Your task to perform on an android device: open chrome privacy settings Image 0: 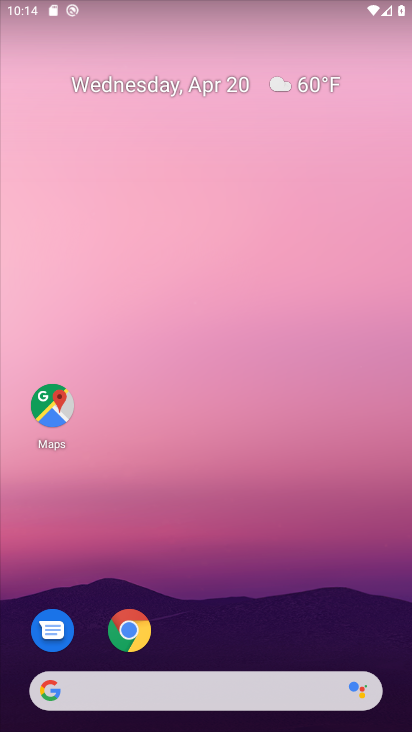
Step 0: click (291, 61)
Your task to perform on an android device: open chrome privacy settings Image 1: 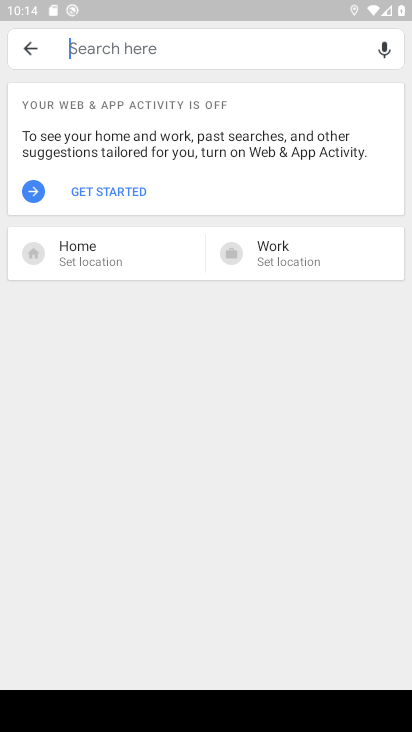
Step 1: press home button
Your task to perform on an android device: open chrome privacy settings Image 2: 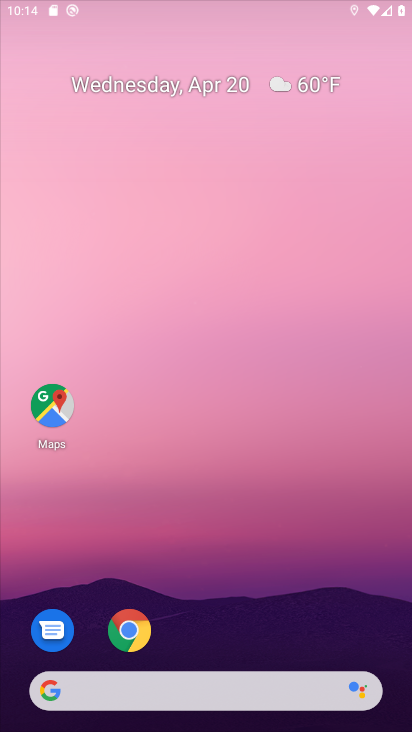
Step 2: drag from (236, 617) to (261, 296)
Your task to perform on an android device: open chrome privacy settings Image 3: 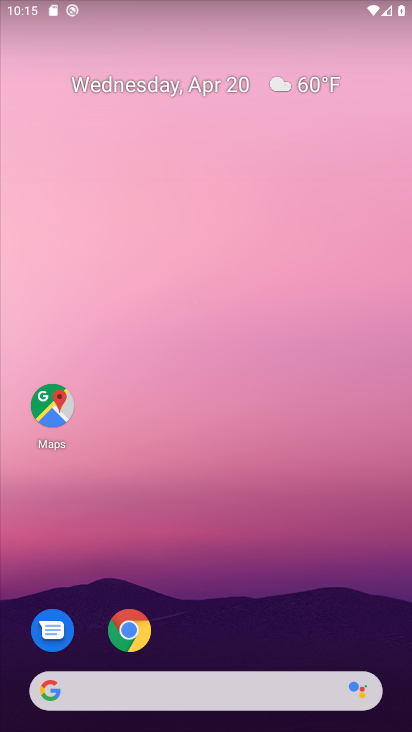
Step 3: drag from (219, 652) to (274, 271)
Your task to perform on an android device: open chrome privacy settings Image 4: 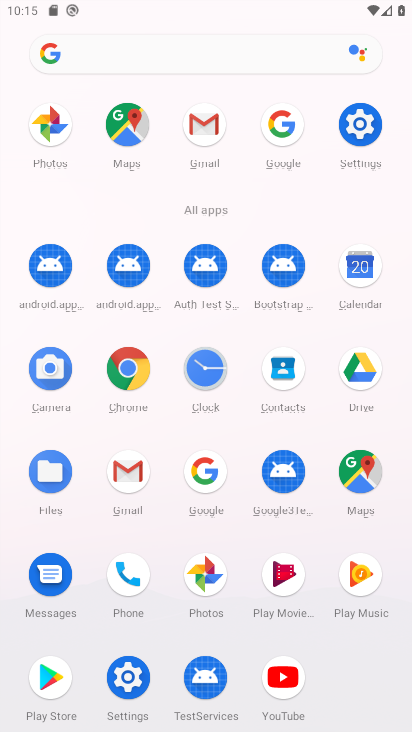
Step 4: click (122, 364)
Your task to perform on an android device: open chrome privacy settings Image 5: 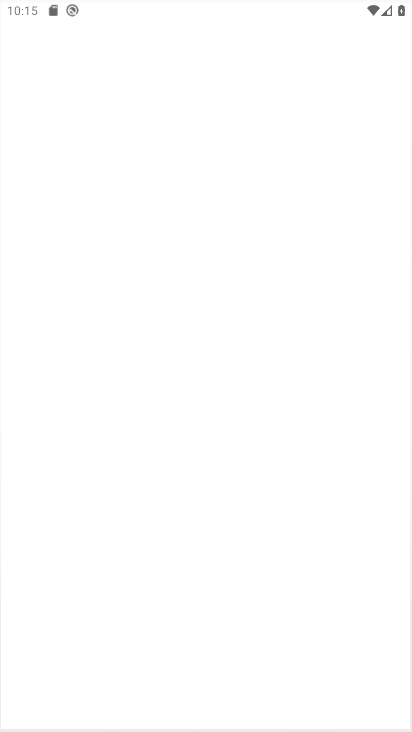
Step 5: click (125, 350)
Your task to perform on an android device: open chrome privacy settings Image 6: 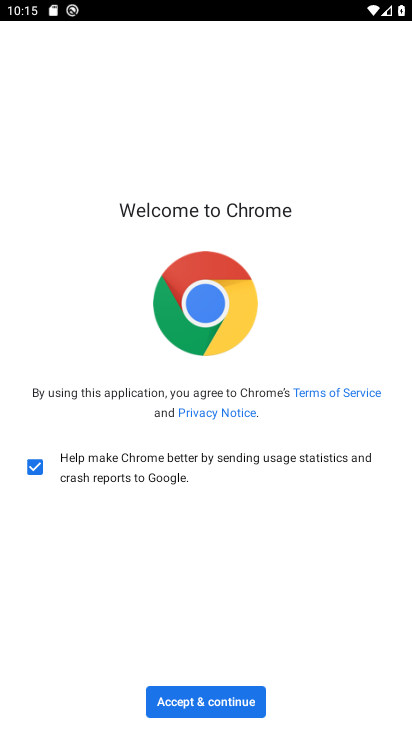
Step 6: click (204, 691)
Your task to perform on an android device: open chrome privacy settings Image 7: 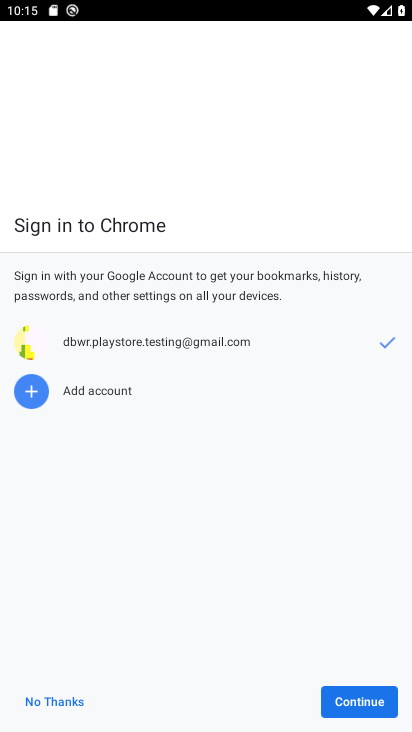
Step 7: click (368, 699)
Your task to perform on an android device: open chrome privacy settings Image 8: 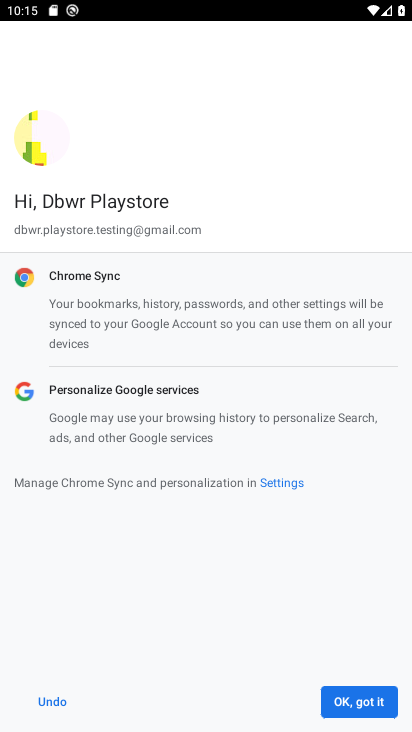
Step 8: click (368, 699)
Your task to perform on an android device: open chrome privacy settings Image 9: 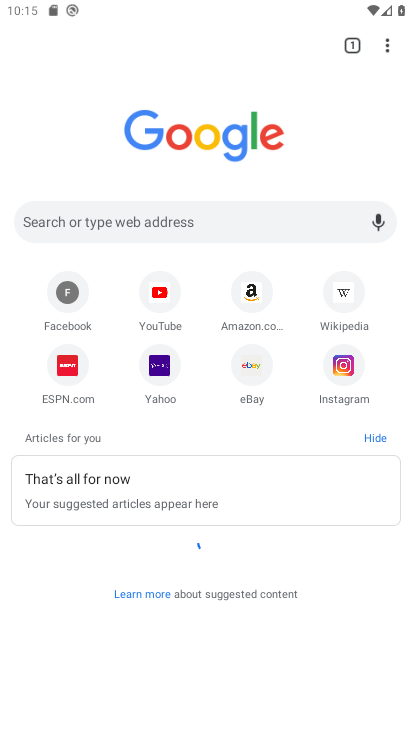
Step 9: click (377, 48)
Your task to perform on an android device: open chrome privacy settings Image 10: 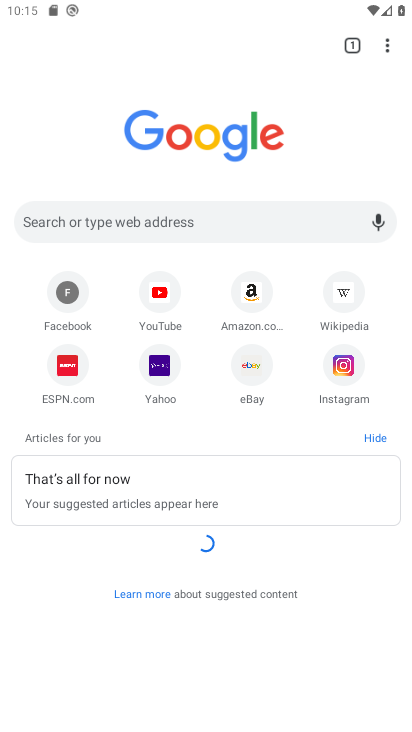
Step 10: click (377, 48)
Your task to perform on an android device: open chrome privacy settings Image 11: 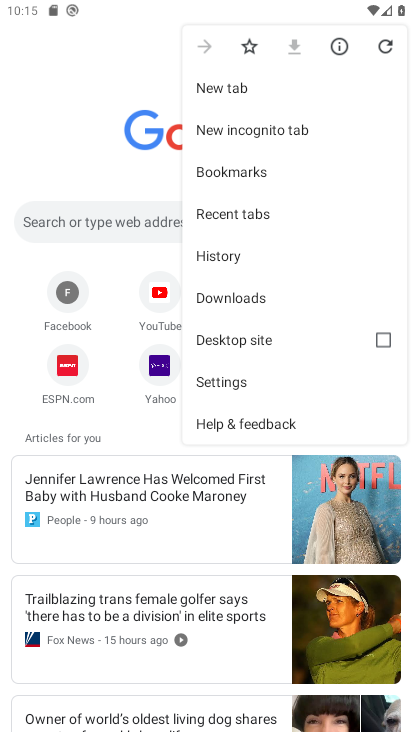
Step 11: click (233, 382)
Your task to perform on an android device: open chrome privacy settings Image 12: 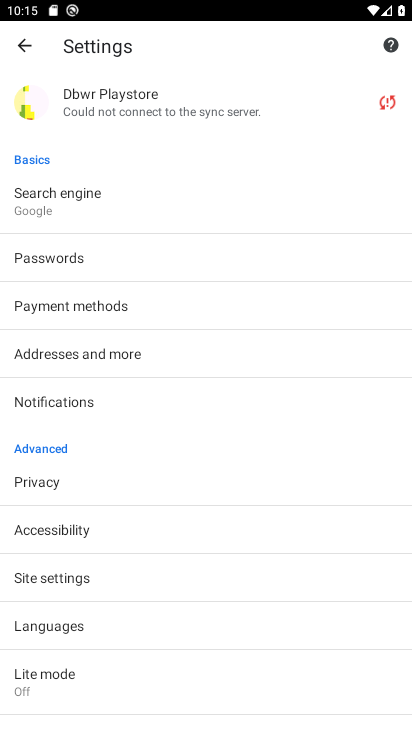
Step 12: click (115, 469)
Your task to perform on an android device: open chrome privacy settings Image 13: 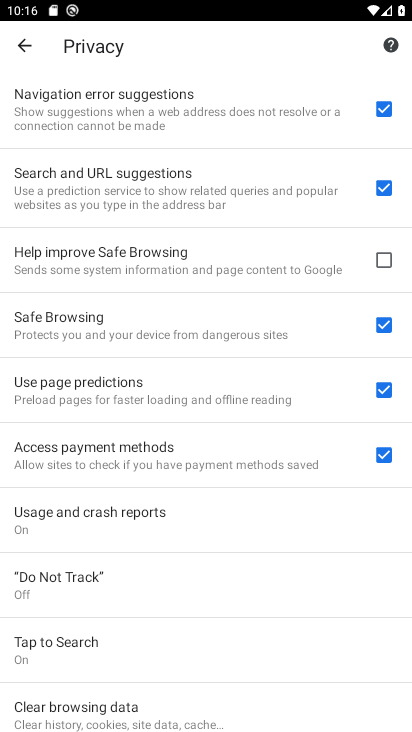
Step 13: task complete